Your task to perform on an android device: Do I have any events today? Image 0: 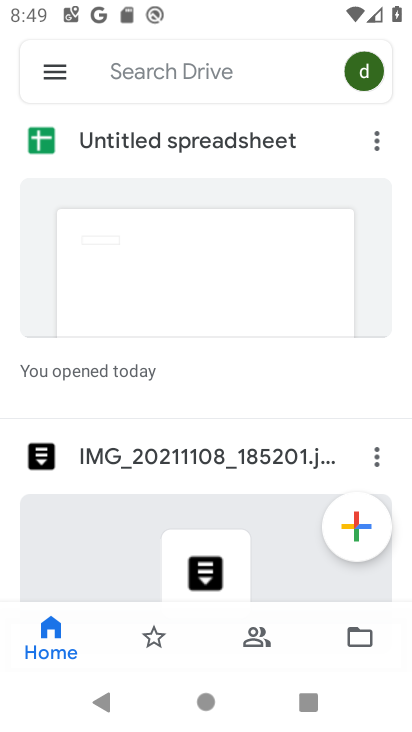
Step 0: press home button
Your task to perform on an android device: Do I have any events today? Image 1: 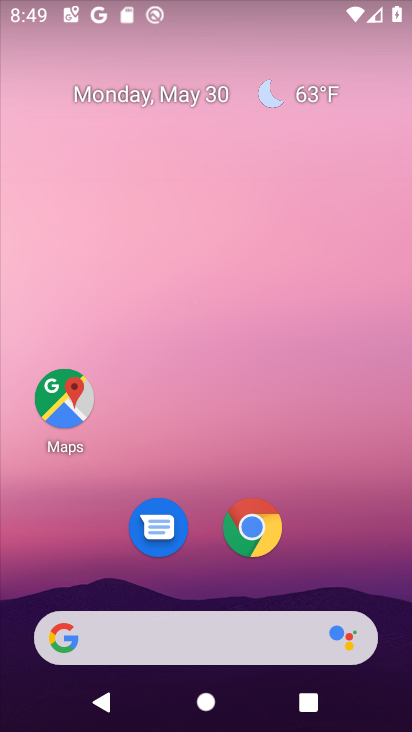
Step 1: drag from (322, 558) to (260, 238)
Your task to perform on an android device: Do I have any events today? Image 2: 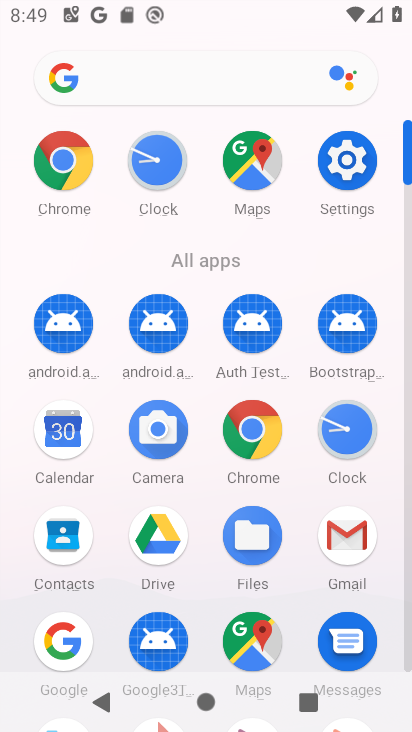
Step 2: click (54, 435)
Your task to perform on an android device: Do I have any events today? Image 3: 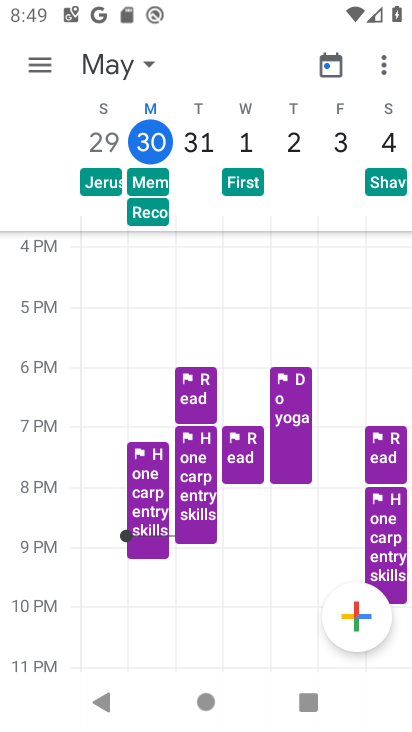
Step 3: click (183, 139)
Your task to perform on an android device: Do I have any events today? Image 4: 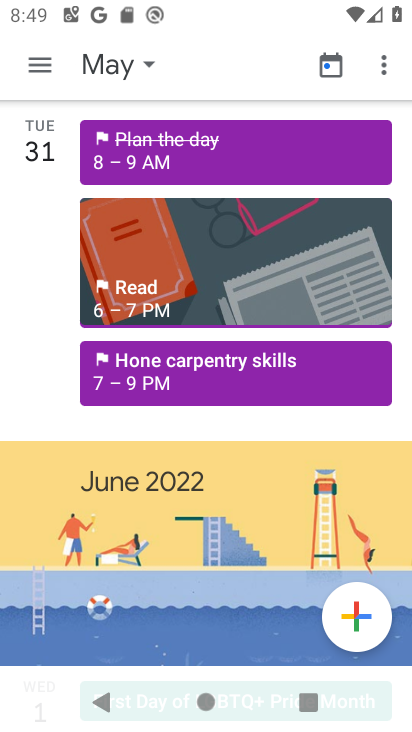
Step 4: task complete